Your task to perform on an android device: What is the capital of Sweden? Image 0: 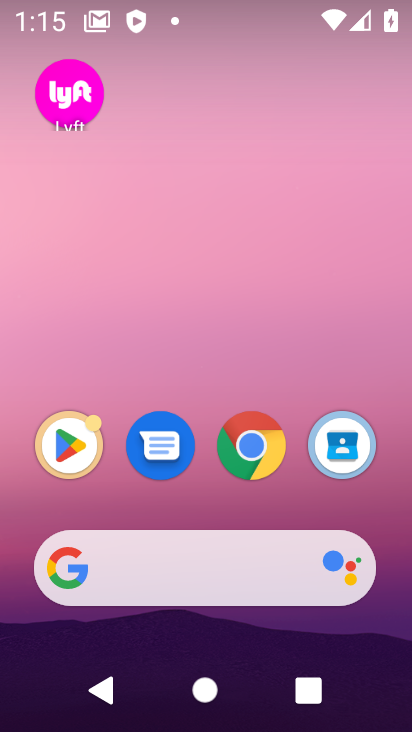
Step 0: click (139, 554)
Your task to perform on an android device: What is the capital of Sweden? Image 1: 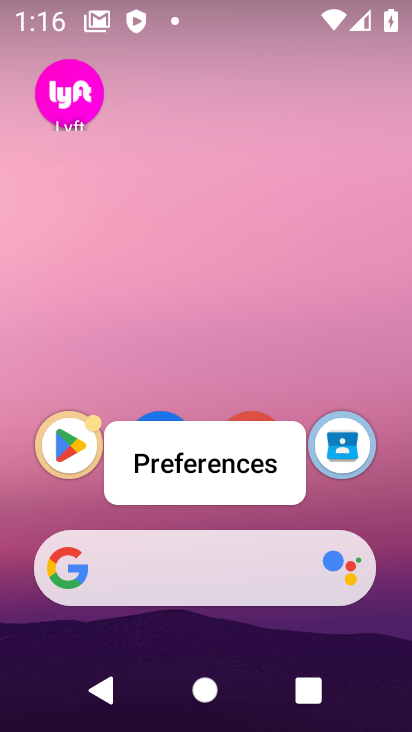
Step 1: click (145, 556)
Your task to perform on an android device: What is the capital of Sweden? Image 2: 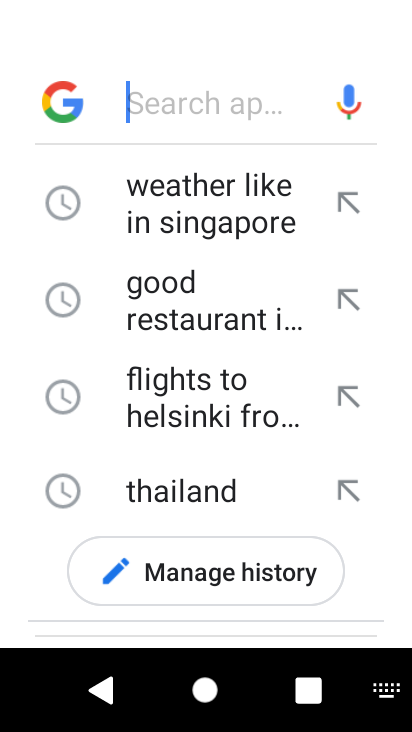
Step 2: type "capital of Sweden"
Your task to perform on an android device: What is the capital of Sweden? Image 3: 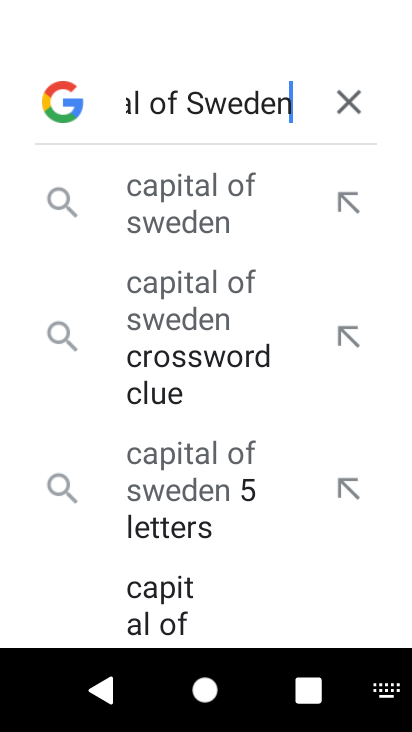
Step 3: type ""
Your task to perform on an android device: What is the capital of Sweden? Image 4: 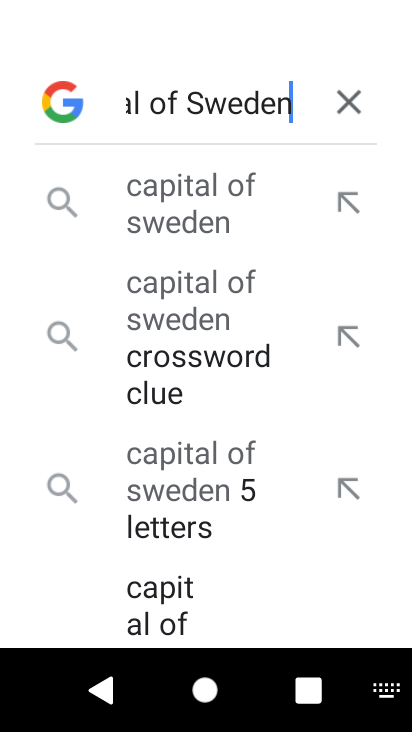
Step 4: click (207, 209)
Your task to perform on an android device: What is the capital of Sweden? Image 5: 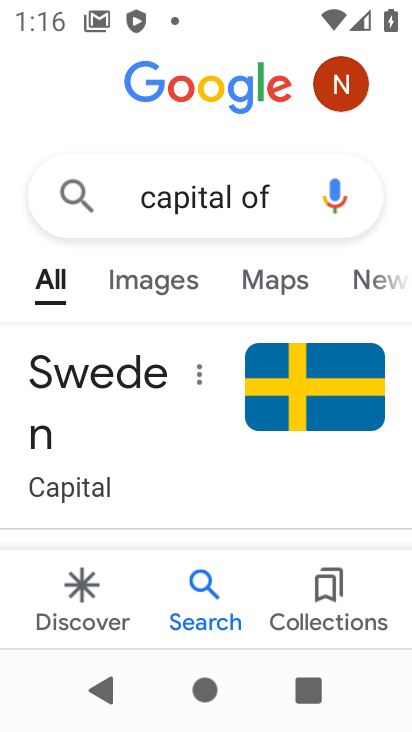
Step 5: task complete